Your task to perform on an android device: Open notification settings Image 0: 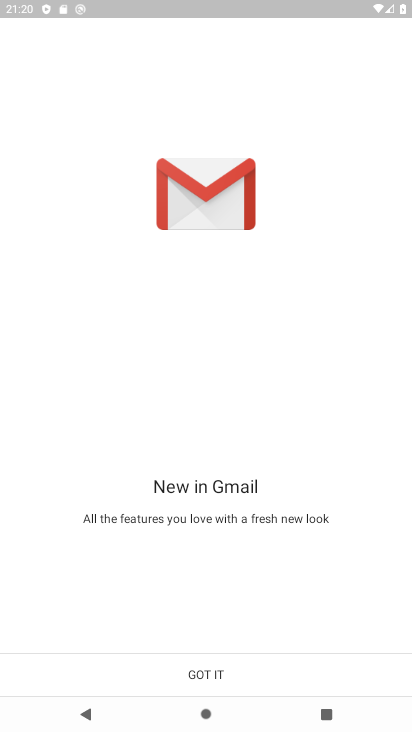
Step 0: press home button
Your task to perform on an android device: Open notification settings Image 1: 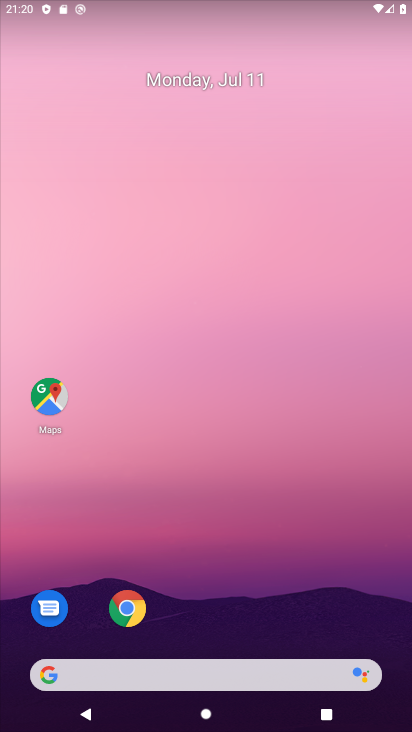
Step 1: drag from (221, 577) to (193, 47)
Your task to perform on an android device: Open notification settings Image 2: 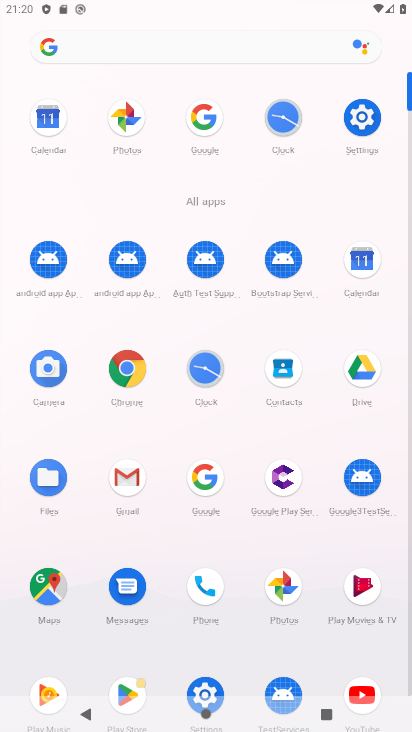
Step 2: click (354, 185)
Your task to perform on an android device: Open notification settings Image 3: 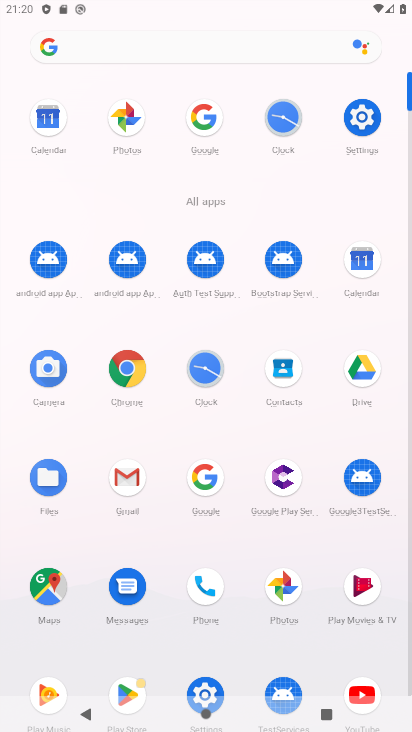
Step 3: click (363, 140)
Your task to perform on an android device: Open notification settings Image 4: 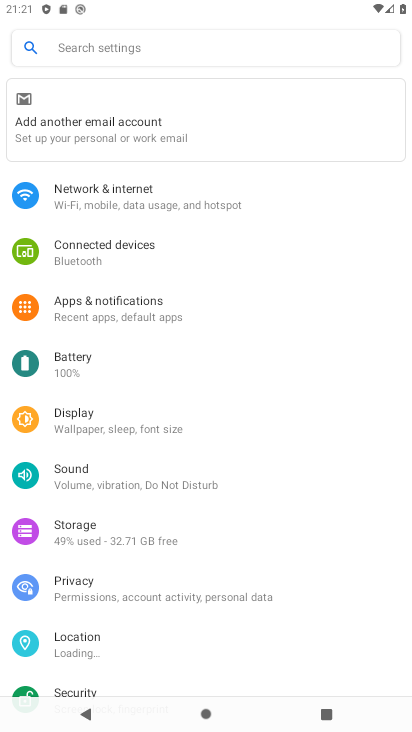
Step 4: click (136, 294)
Your task to perform on an android device: Open notification settings Image 5: 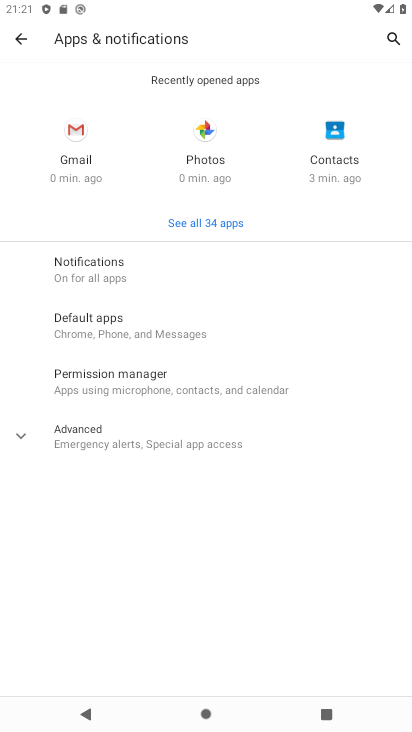
Step 5: click (85, 263)
Your task to perform on an android device: Open notification settings Image 6: 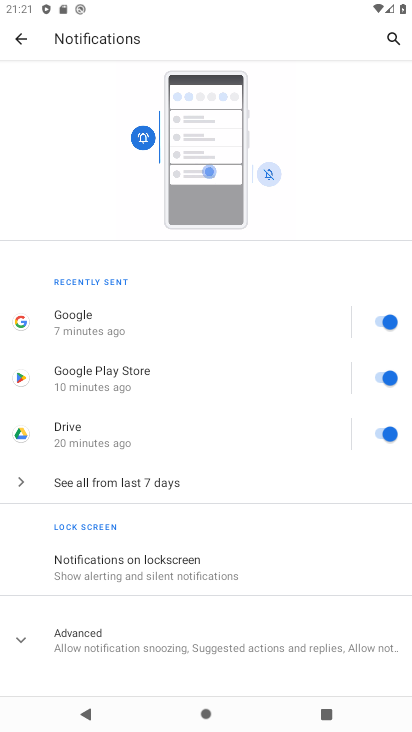
Step 6: task complete